Your task to perform on an android device: Open accessibility settings Image 0: 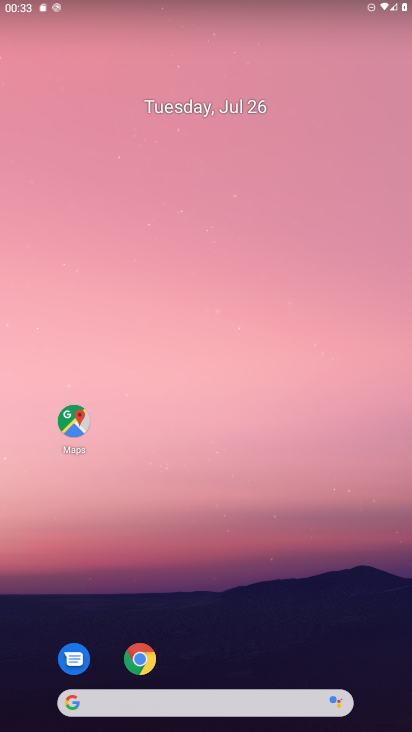
Step 0: press home button
Your task to perform on an android device: Open accessibility settings Image 1: 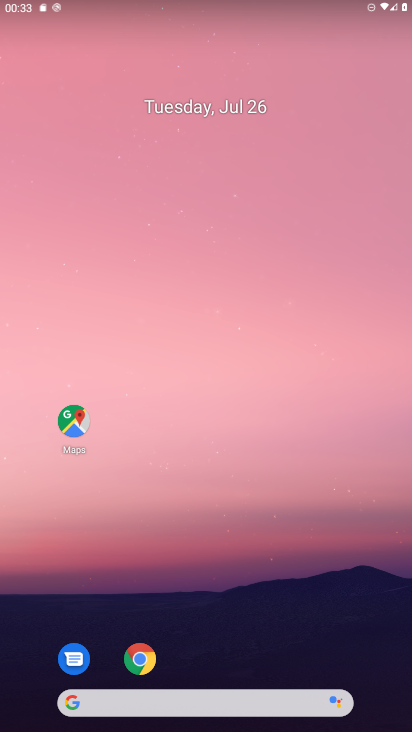
Step 1: drag from (274, 618) to (291, 4)
Your task to perform on an android device: Open accessibility settings Image 2: 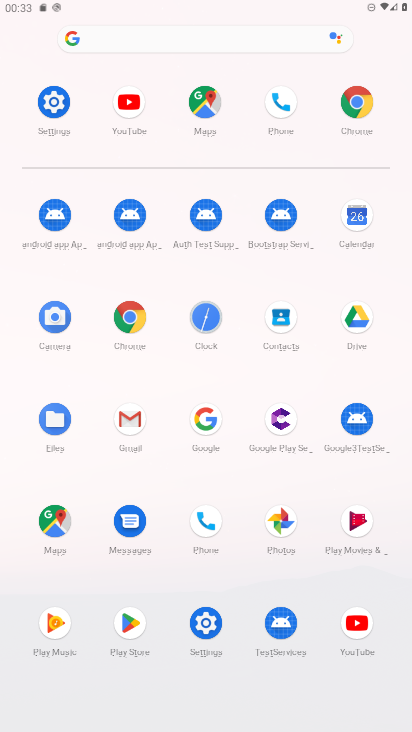
Step 2: click (199, 633)
Your task to perform on an android device: Open accessibility settings Image 3: 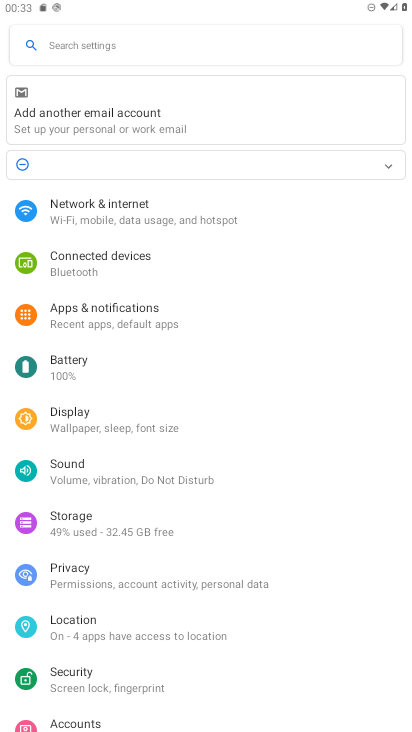
Step 3: drag from (203, 634) to (201, 5)
Your task to perform on an android device: Open accessibility settings Image 4: 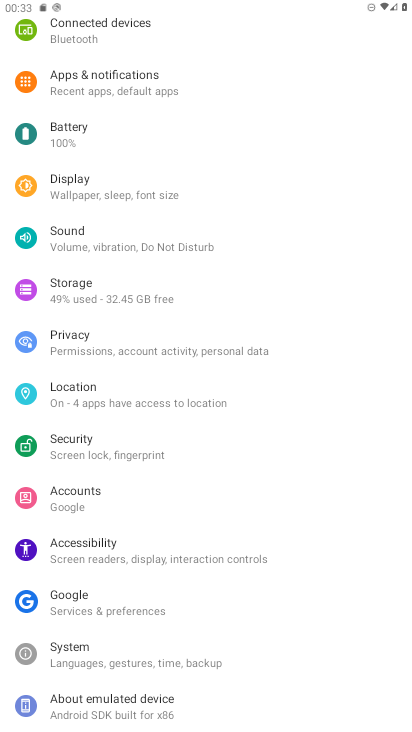
Step 4: click (48, 556)
Your task to perform on an android device: Open accessibility settings Image 5: 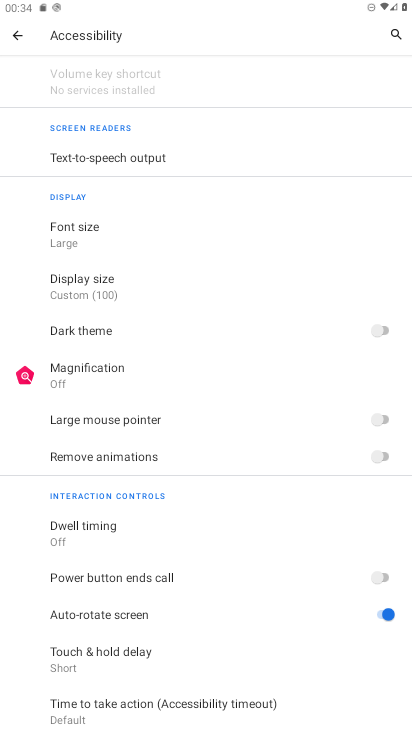
Step 5: task complete